Your task to perform on an android device: change the clock display to digital Image 0: 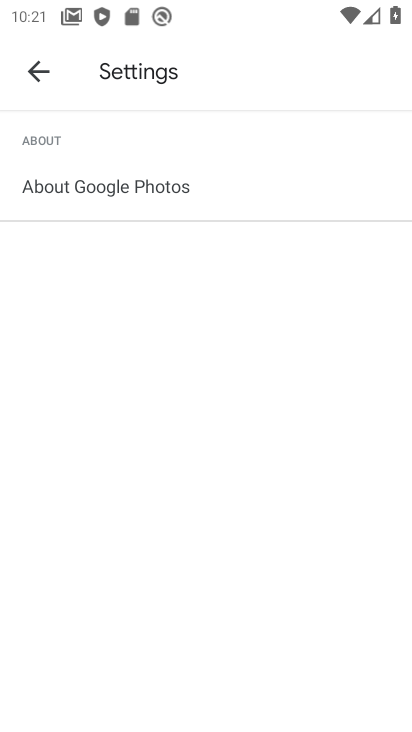
Step 0: press home button
Your task to perform on an android device: change the clock display to digital Image 1: 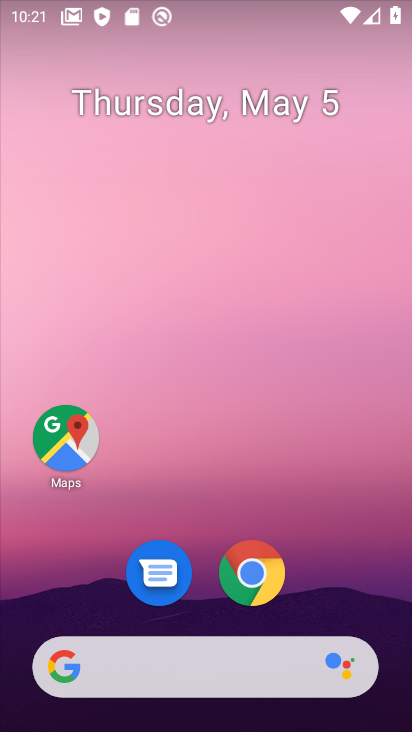
Step 1: drag from (12, 675) to (246, 178)
Your task to perform on an android device: change the clock display to digital Image 2: 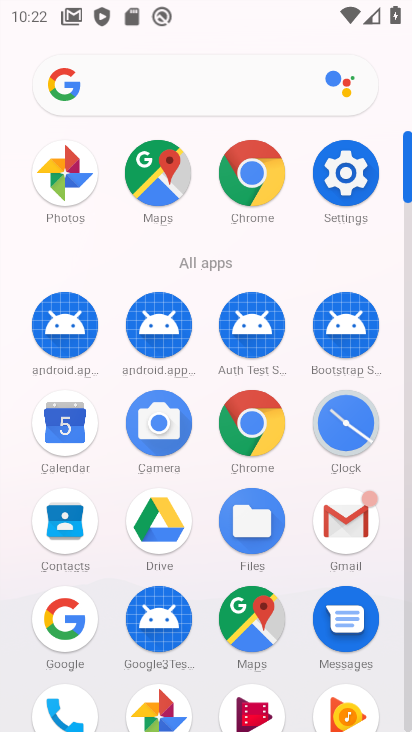
Step 2: click (330, 417)
Your task to perform on an android device: change the clock display to digital Image 3: 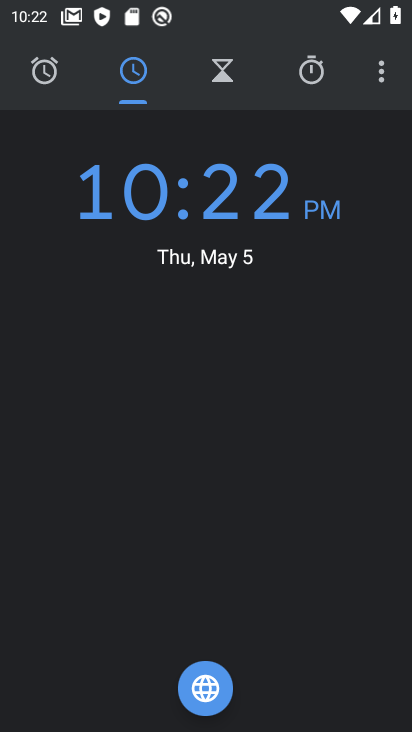
Step 3: click (378, 81)
Your task to perform on an android device: change the clock display to digital Image 4: 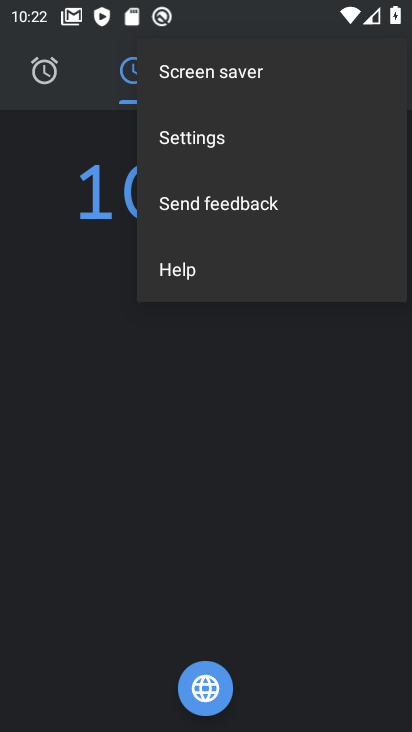
Step 4: click (289, 140)
Your task to perform on an android device: change the clock display to digital Image 5: 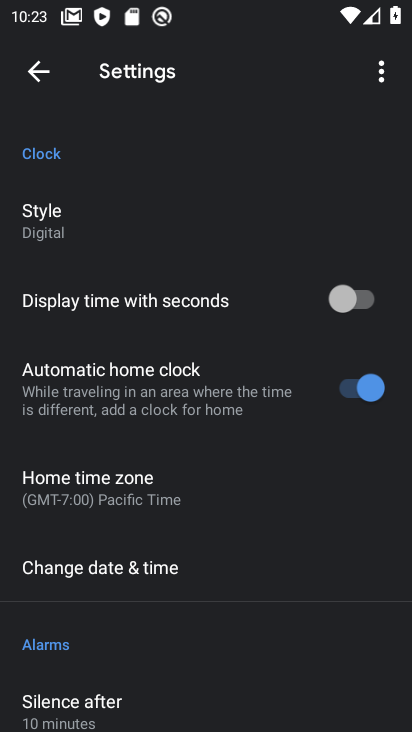
Step 5: task complete